Your task to perform on an android device: turn pop-ups on in chrome Image 0: 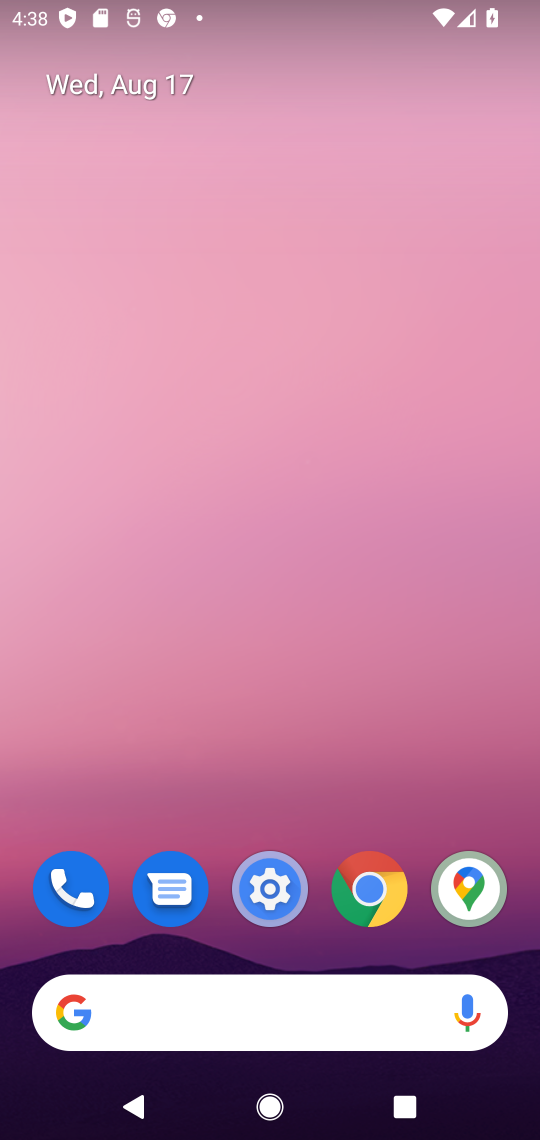
Step 0: click (370, 886)
Your task to perform on an android device: turn pop-ups on in chrome Image 1: 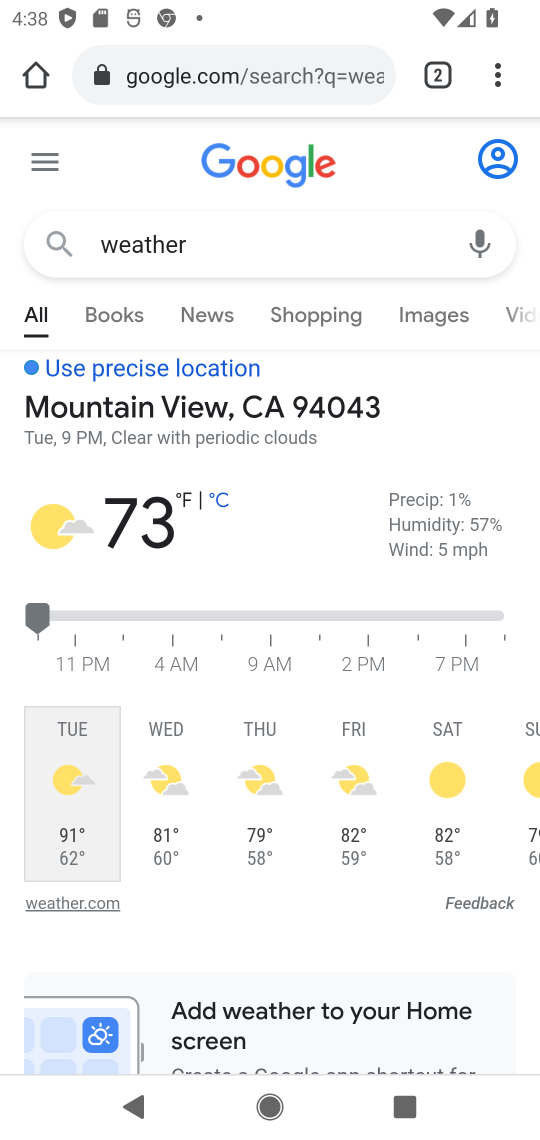
Step 1: click (498, 77)
Your task to perform on an android device: turn pop-ups on in chrome Image 2: 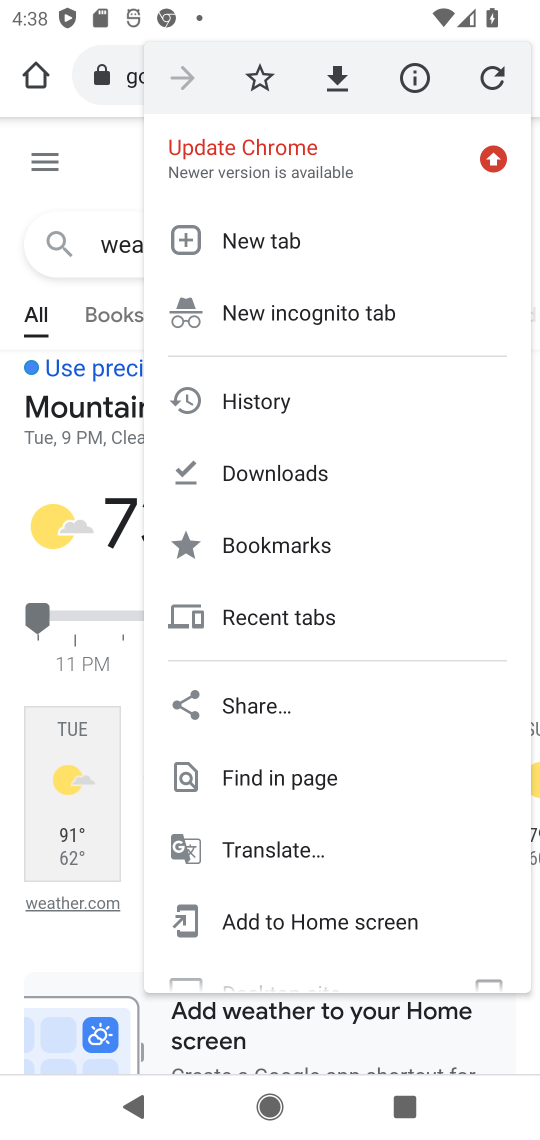
Step 2: drag from (392, 856) to (357, 207)
Your task to perform on an android device: turn pop-ups on in chrome Image 3: 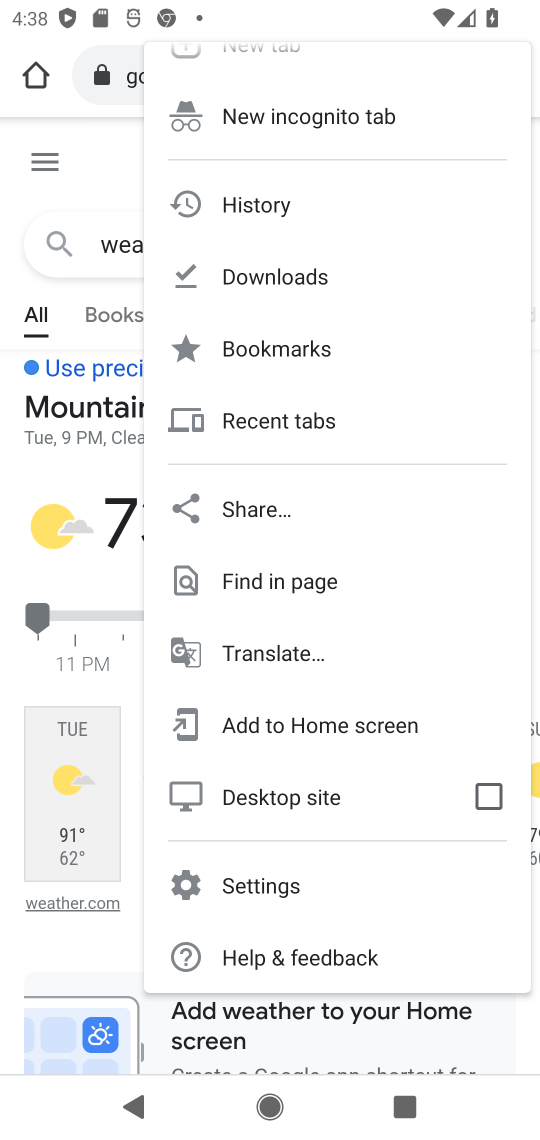
Step 3: click (252, 881)
Your task to perform on an android device: turn pop-ups on in chrome Image 4: 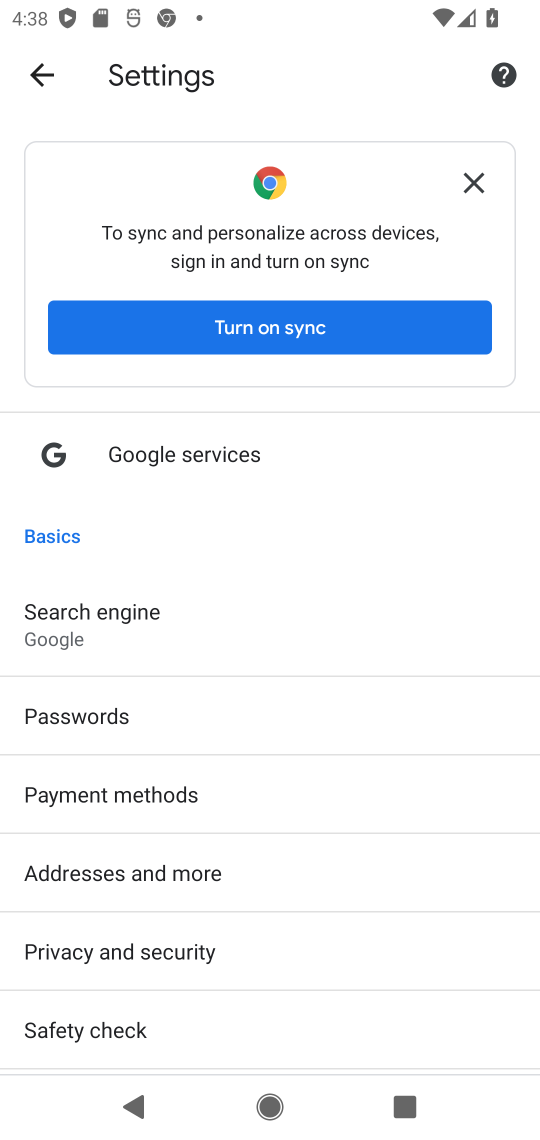
Step 4: drag from (289, 958) to (283, 597)
Your task to perform on an android device: turn pop-ups on in chrome Image 5: 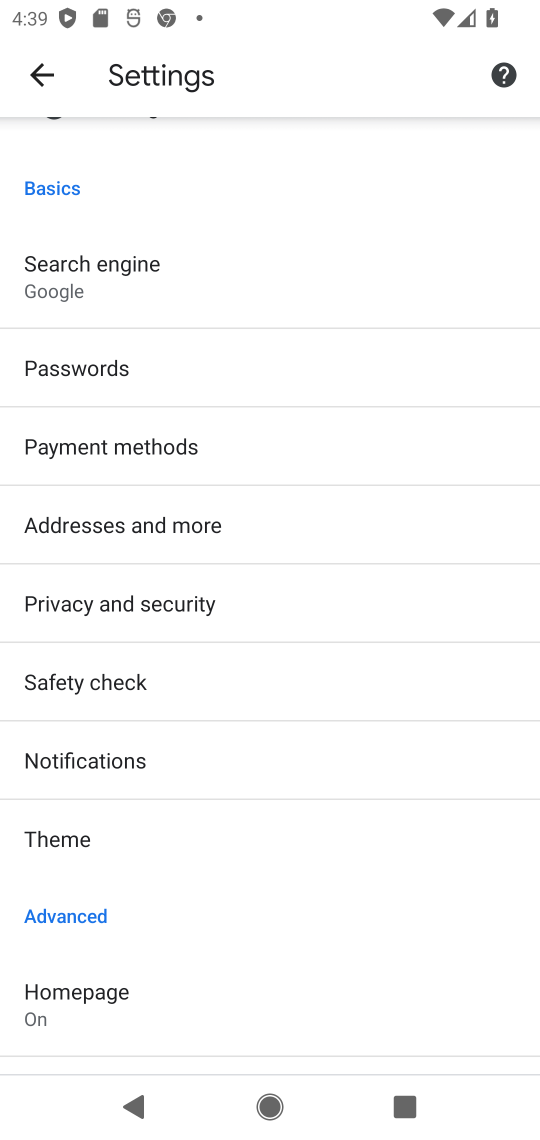
Step 5: drag from (270, 899) to (218, 309)
Your task to perform on an android device: turn pop-ups on in chrome Image 6: 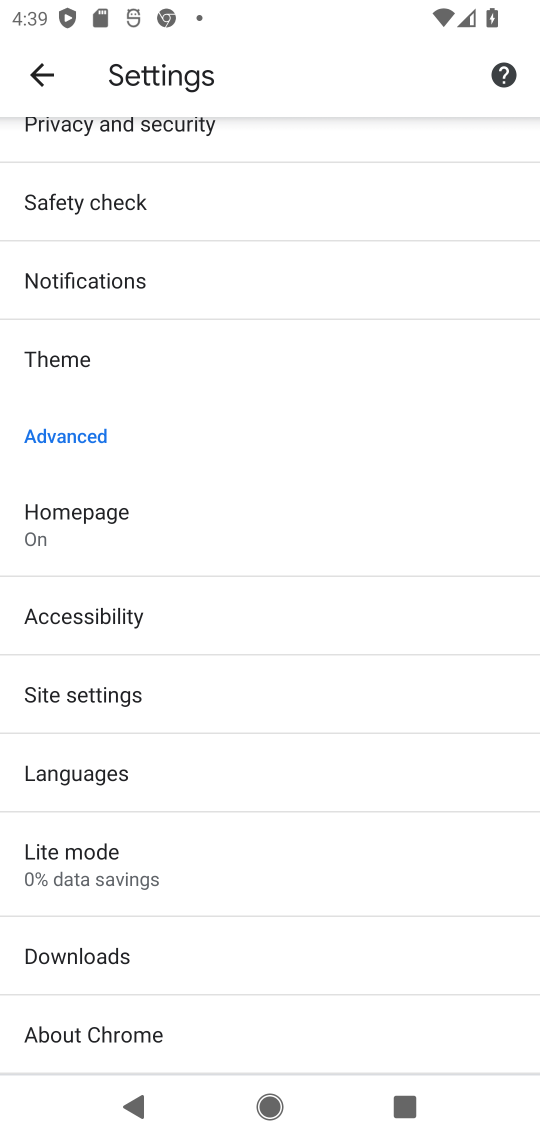
Step 6: click (81, 691)
Your task to perform on an android device: turn pop-ups on in chrome Image 7: 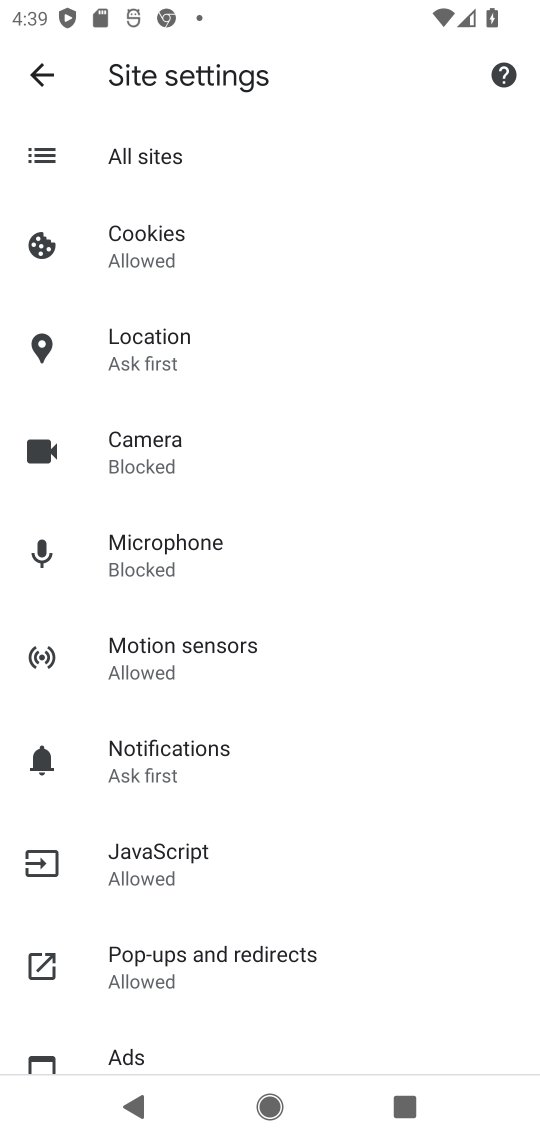
Step 7: click (176, 958)
Your task to perform on an android device: turn pop-ups on in chrome Image 8: 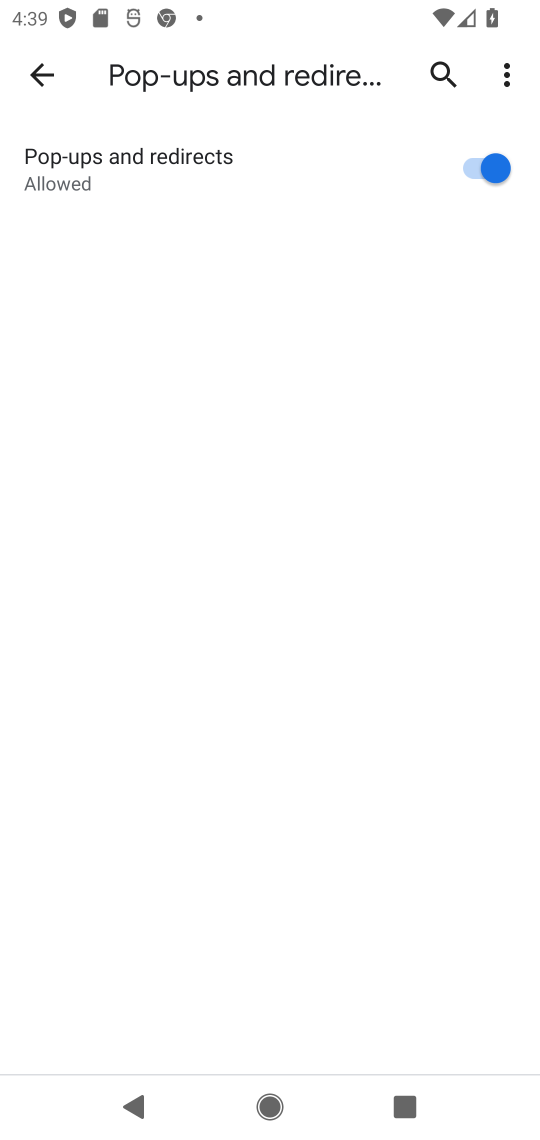
Step 8: task complete